Your task to perform on an android device: Install the Uber app Image 0: 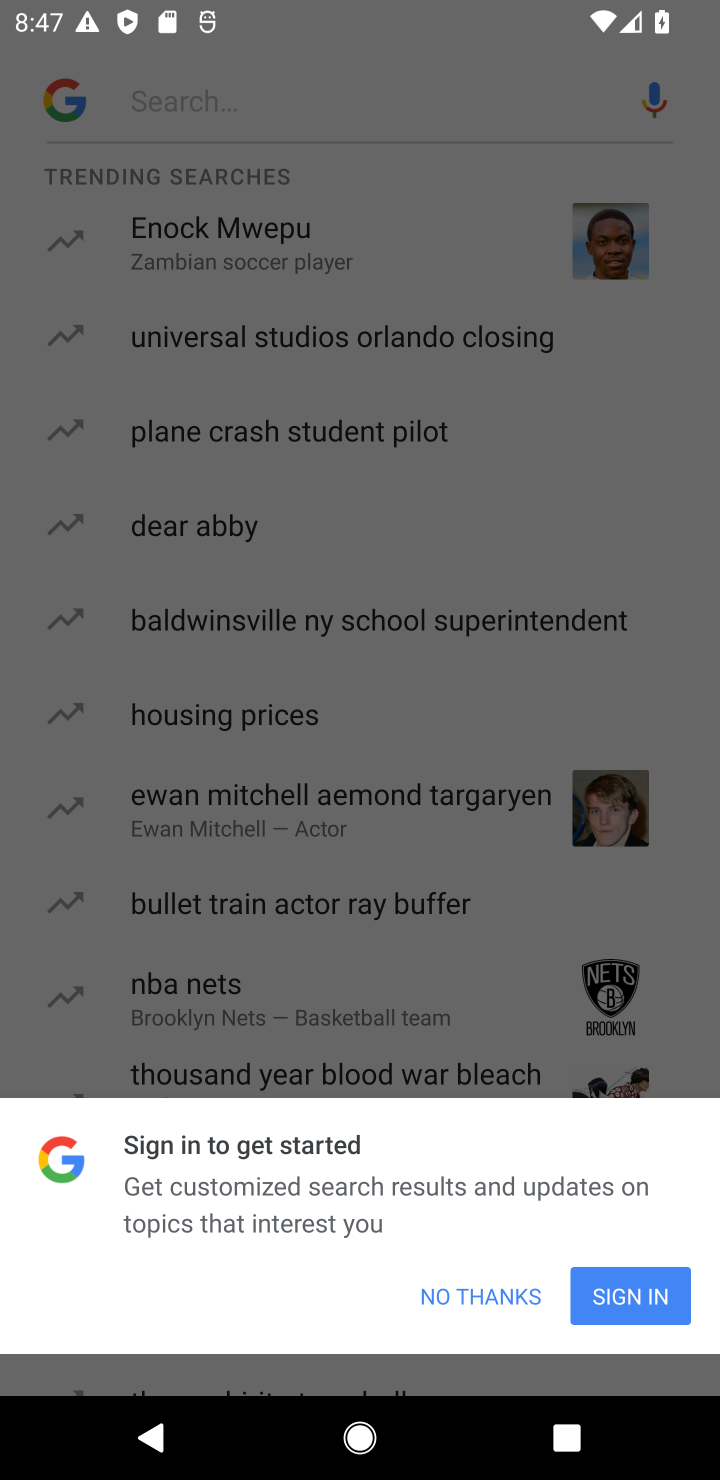
Step 0: press home button
Your task to perform on an android device: Install the Uber app Image 1: 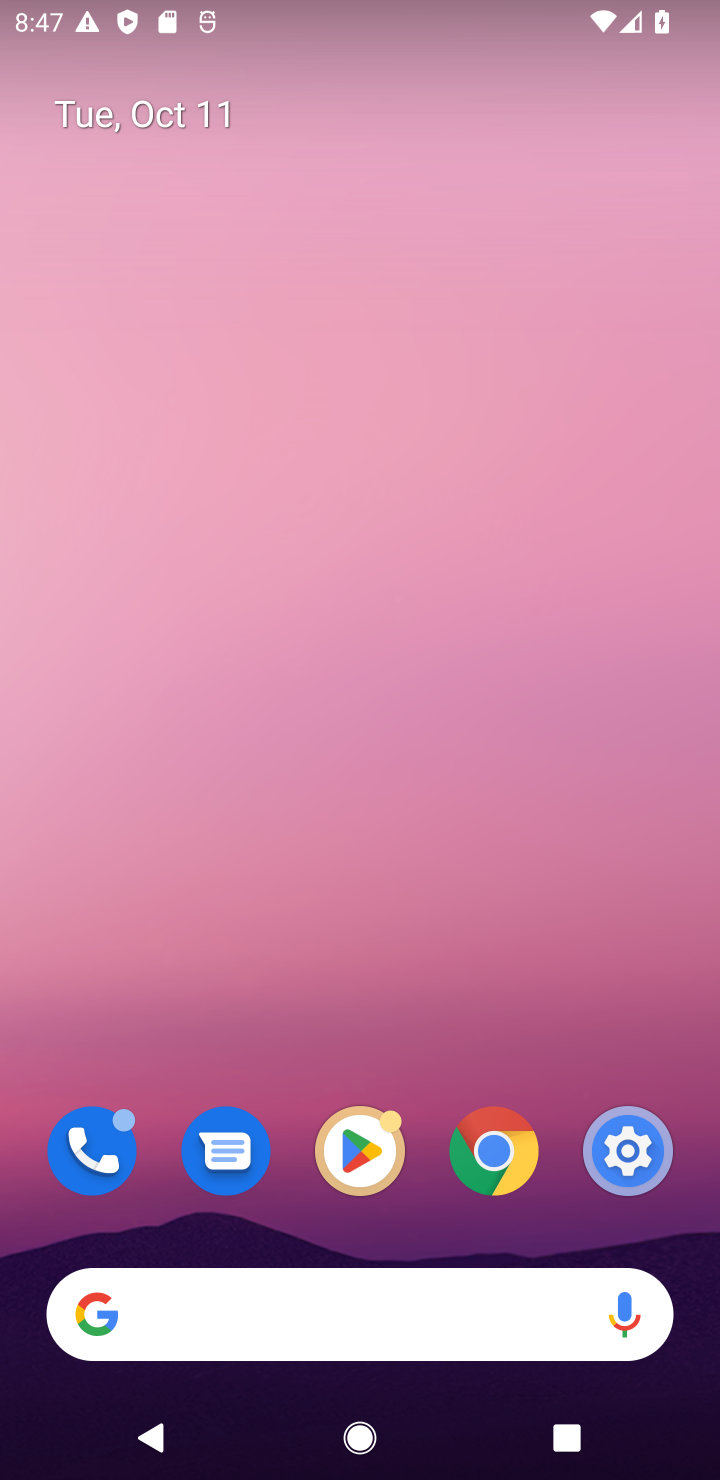
Step 1: click (629, 1056)
Your task to perform on an android device: Install the Uber app Image 2: 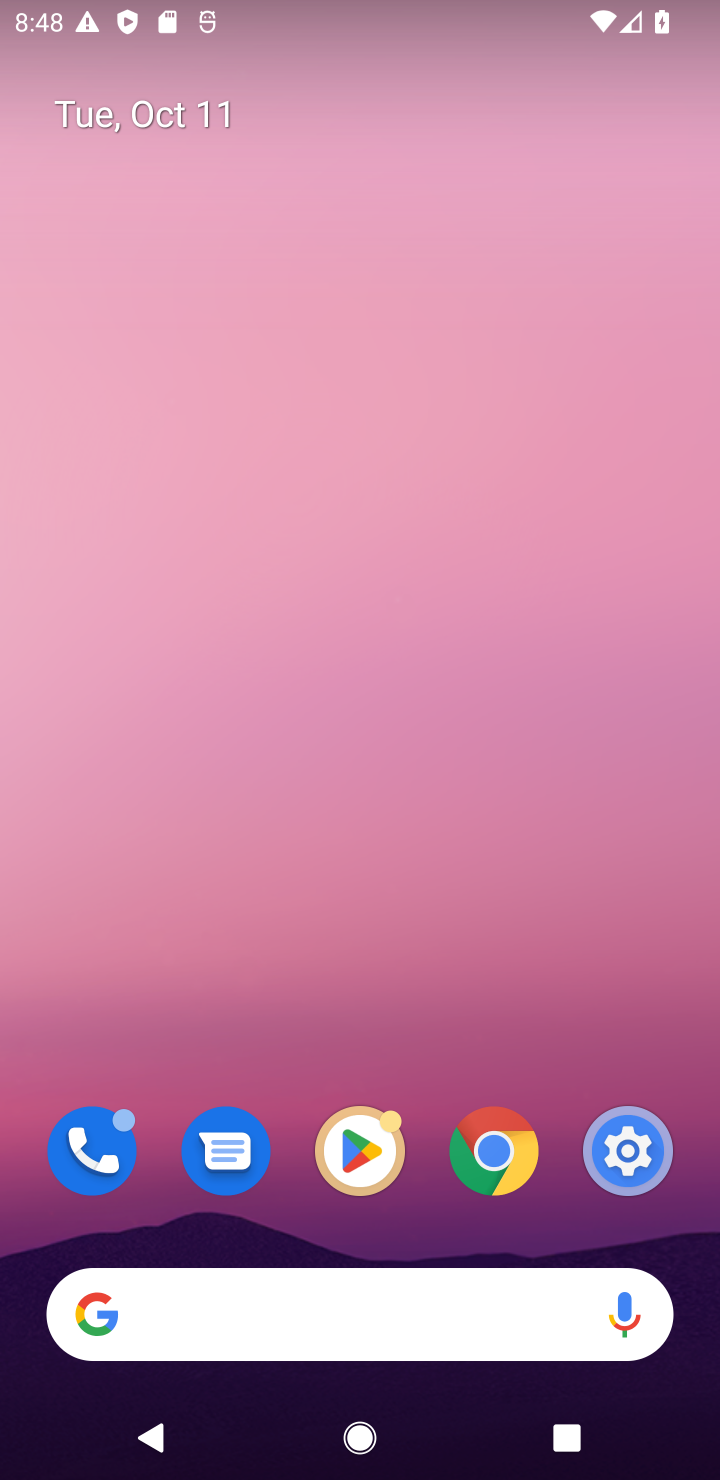
Step 2: click (478, 965)
Your task to perform on an android device: Install the Uber app Image 3: 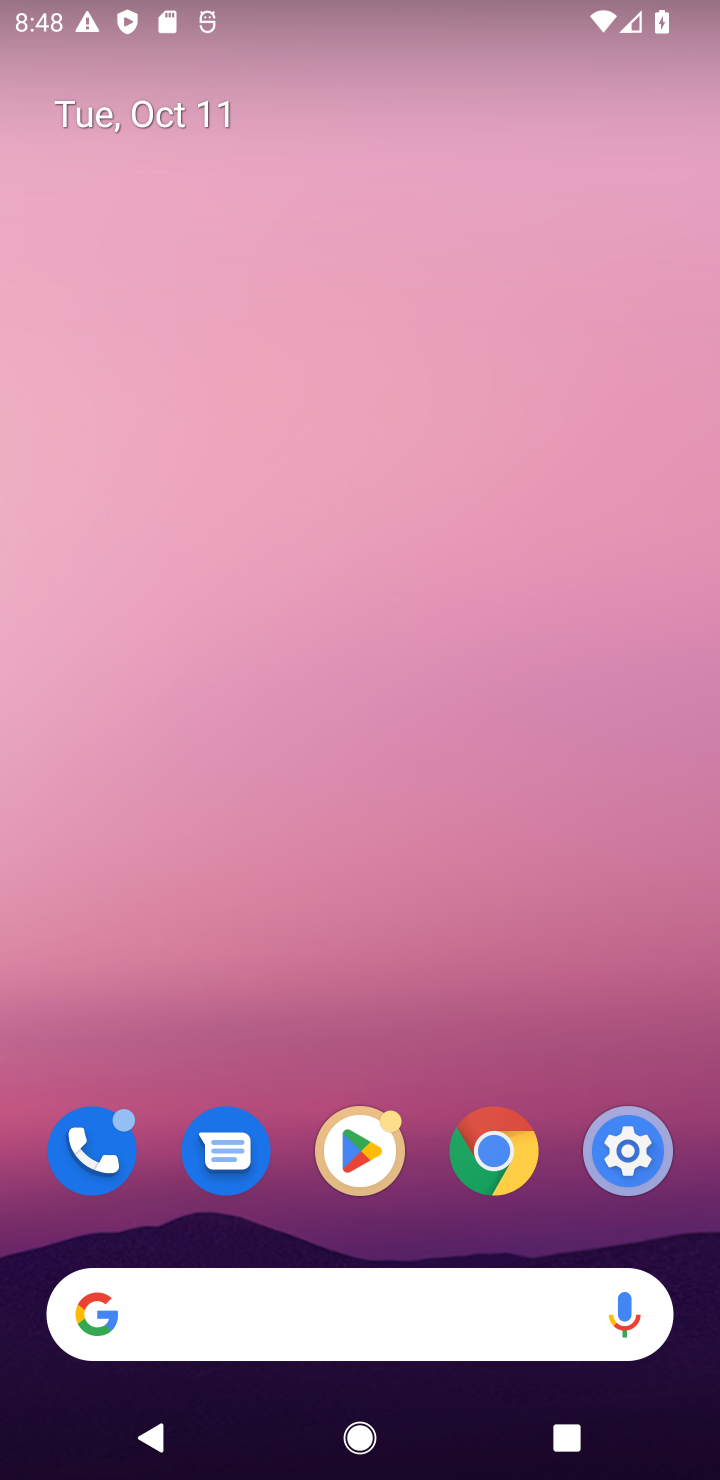
Step 3: click (343, 1142)
Your task to perform on an android device: Install the Uber app Image 4: 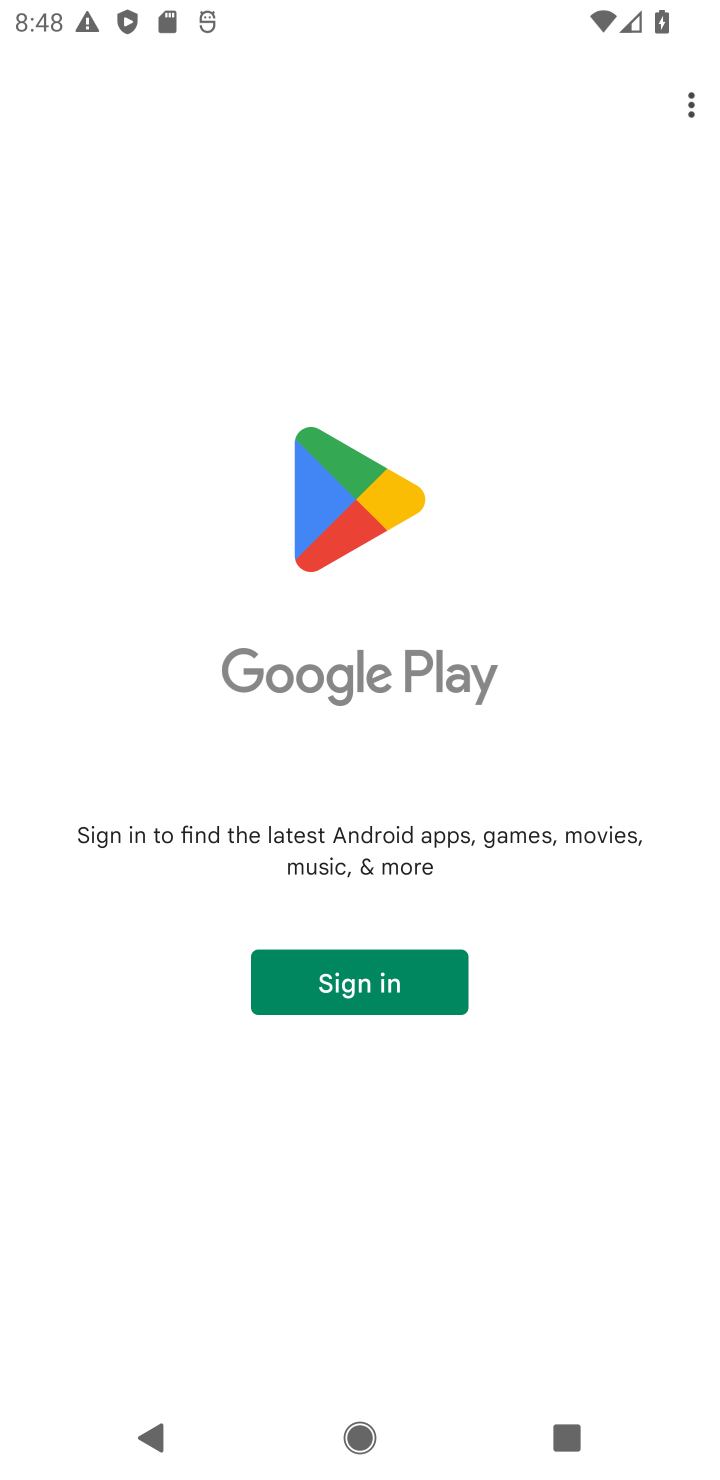
Step 4: task complete